Your task to perform on an android device: uninstall "Reddit" Image 0: 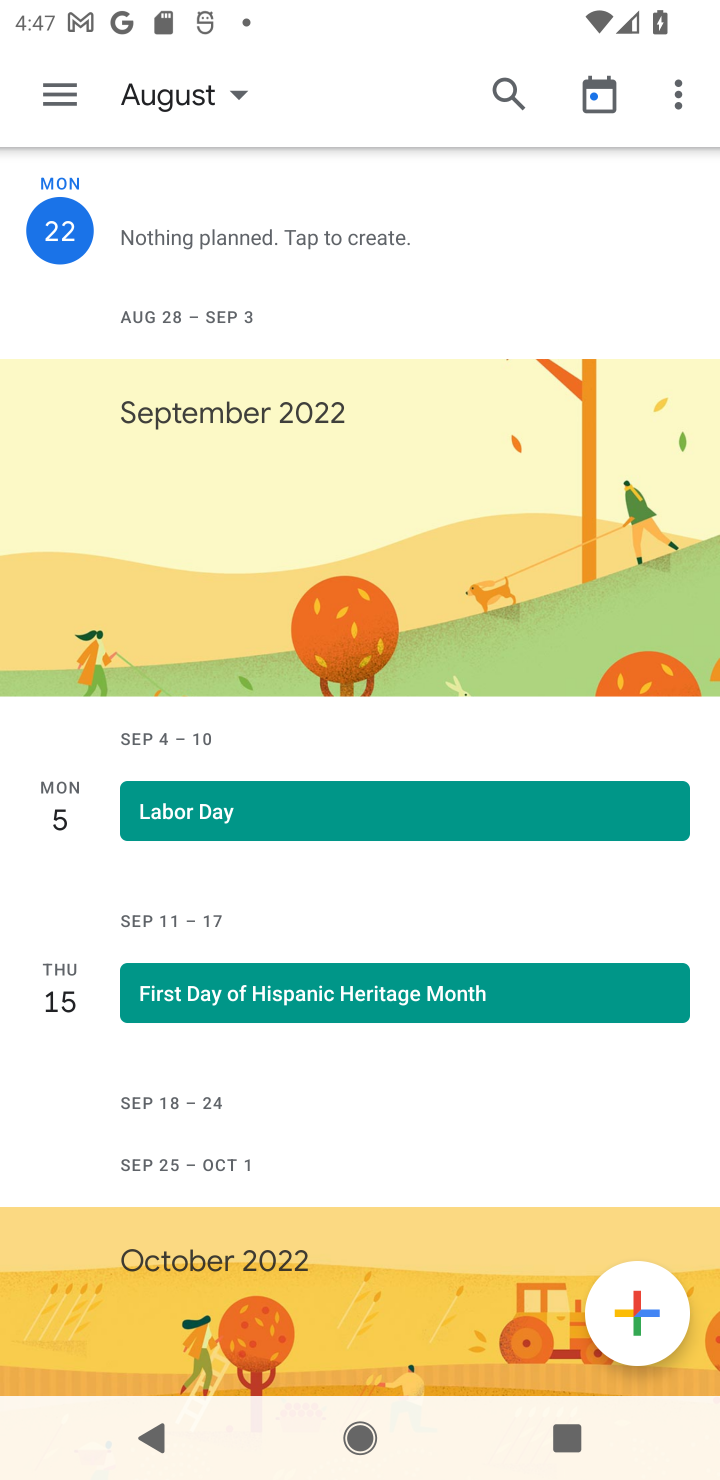
Step 0: press back button
Your task to perform on an android device: uninstall "Reddit" Image 1: 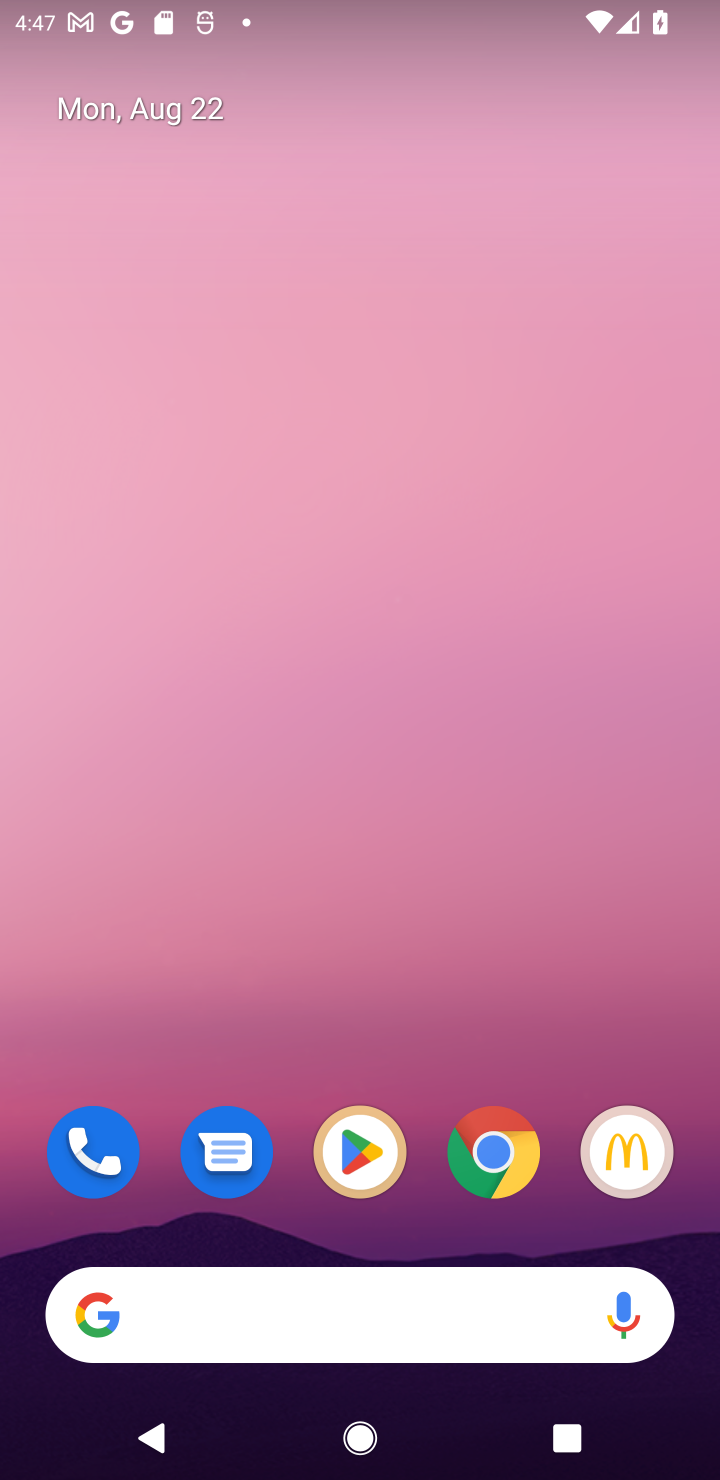
Step 1: click (374, 1179)
Your task to perform on an android device: uninstall "Reddit" Image 2: 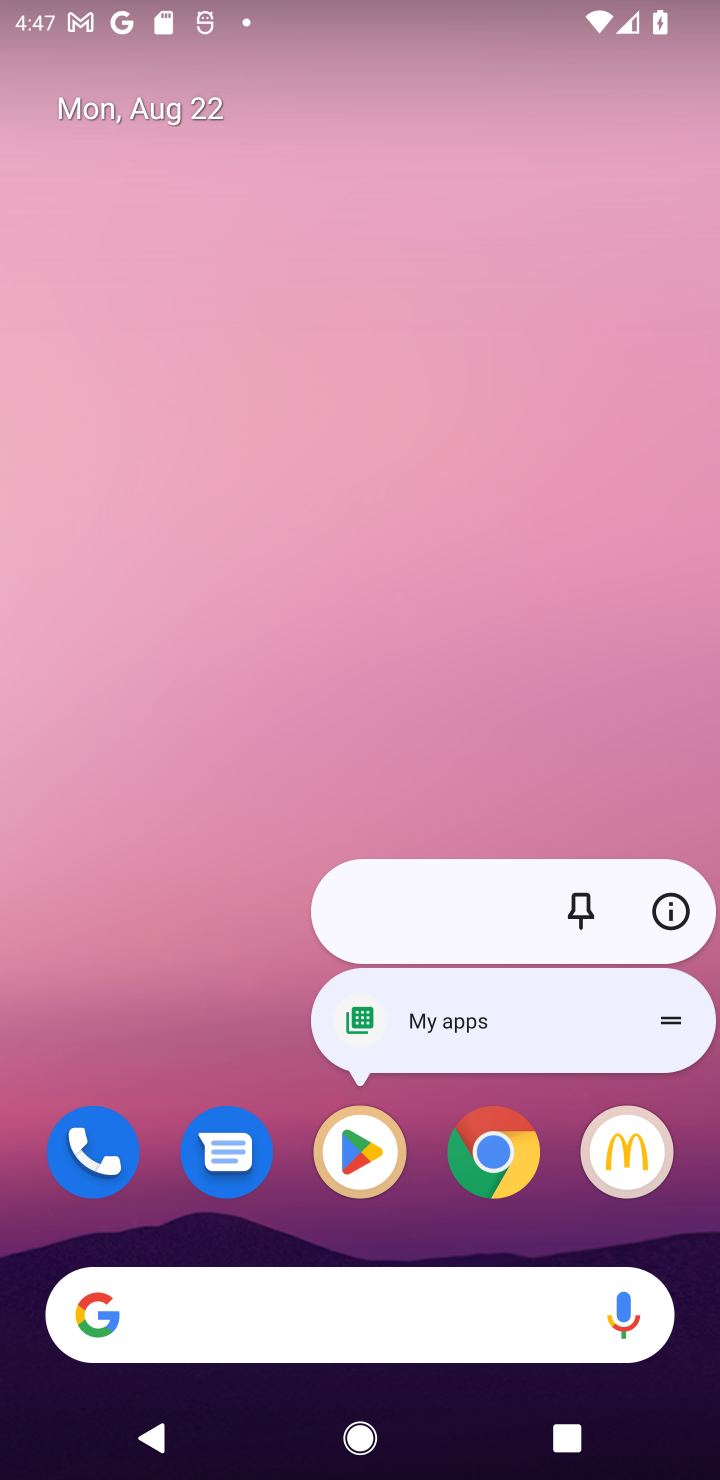
Step 2: click (348, 1173)
Your task to perform on an android device: uninstall "Reddit" Image 3: 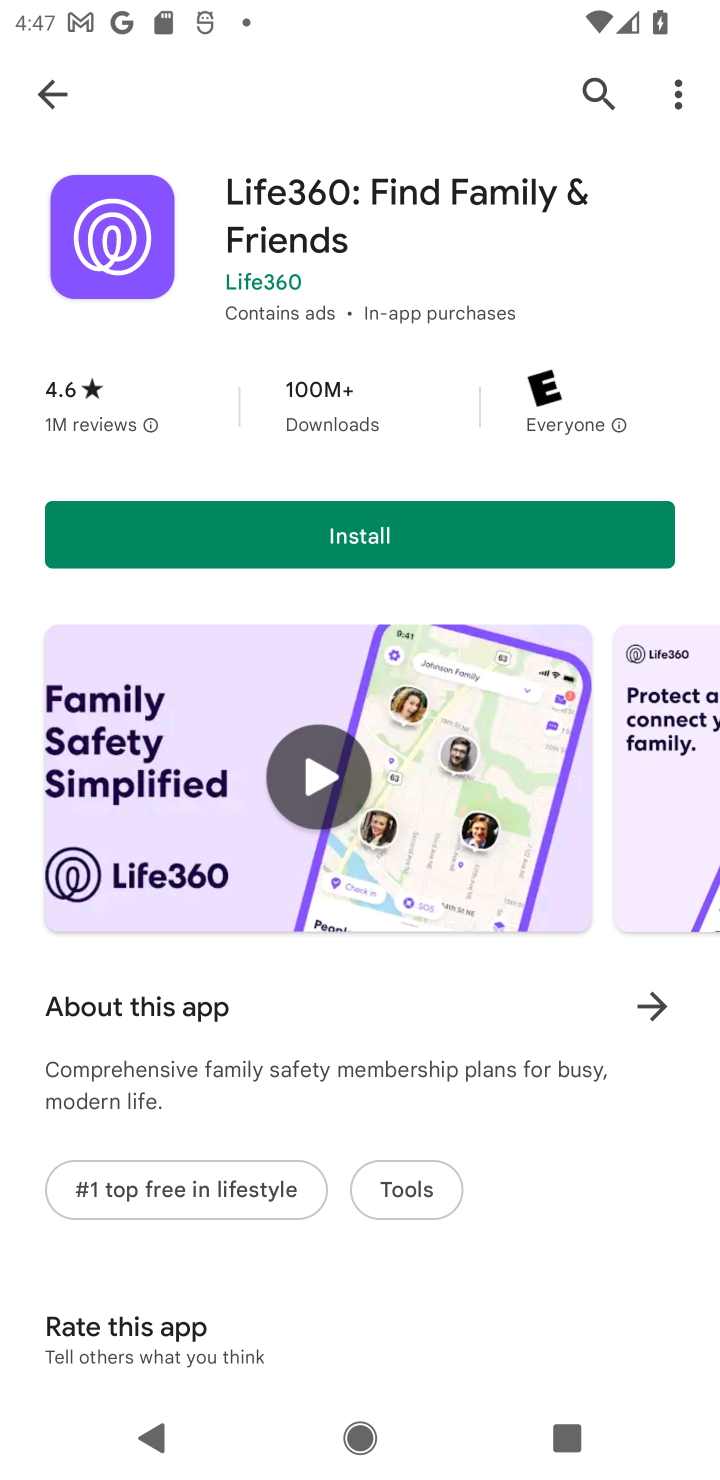
Step 3: click (48, 86)
Your task to perform on an android device: uninstall "Reddit" Image 4: 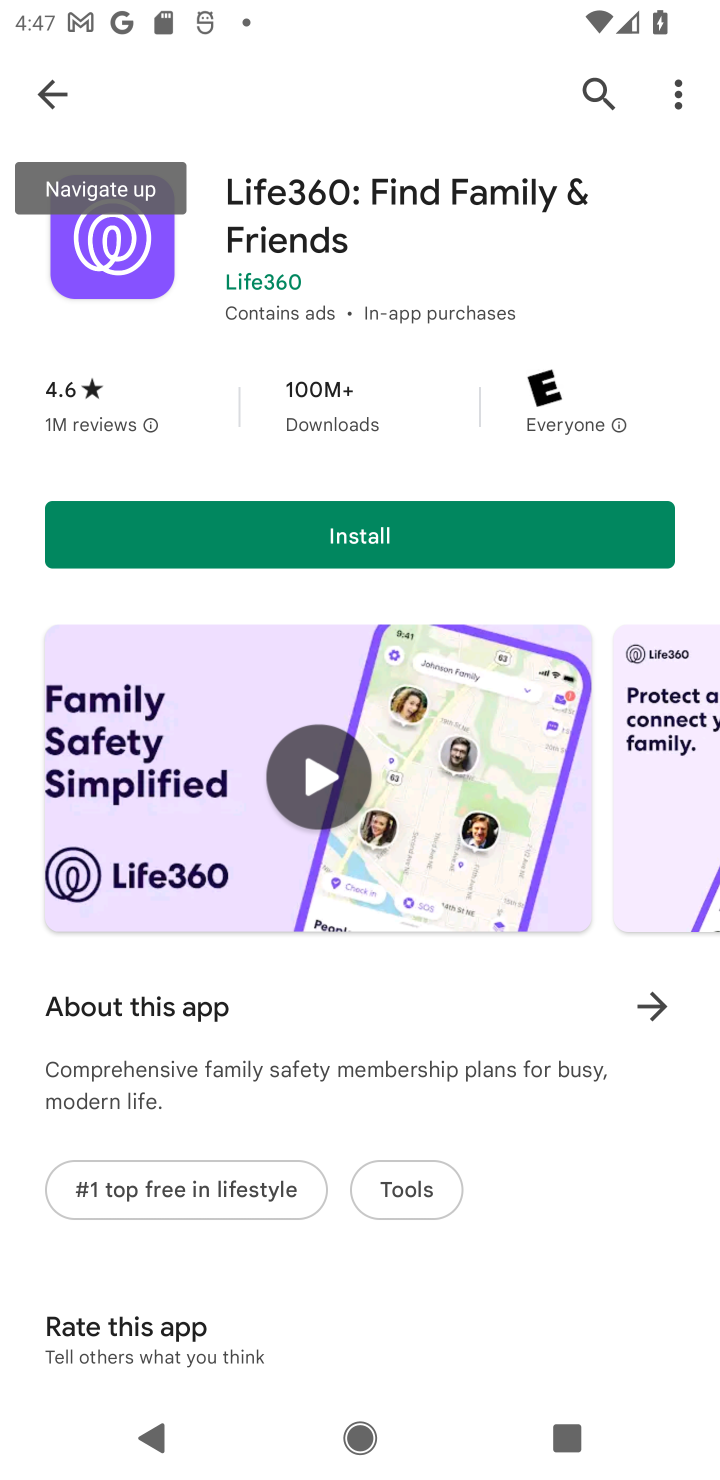
Step 4: click (619, 100)
Your task to perform on an android device: uninstall "Reddit" Image 5: 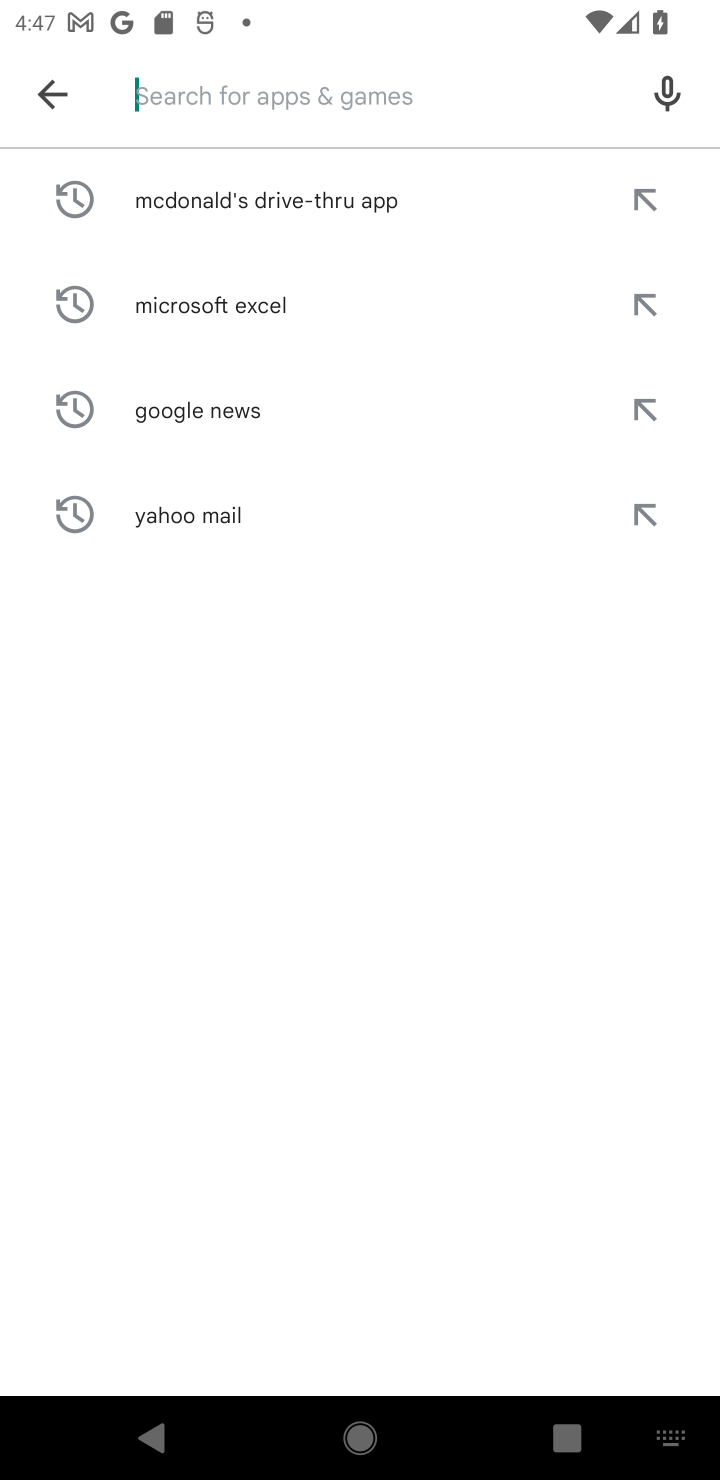
Step 5: type "Reddit"
Your task to perform on an android device: uninstall "Reddit" Image 6: 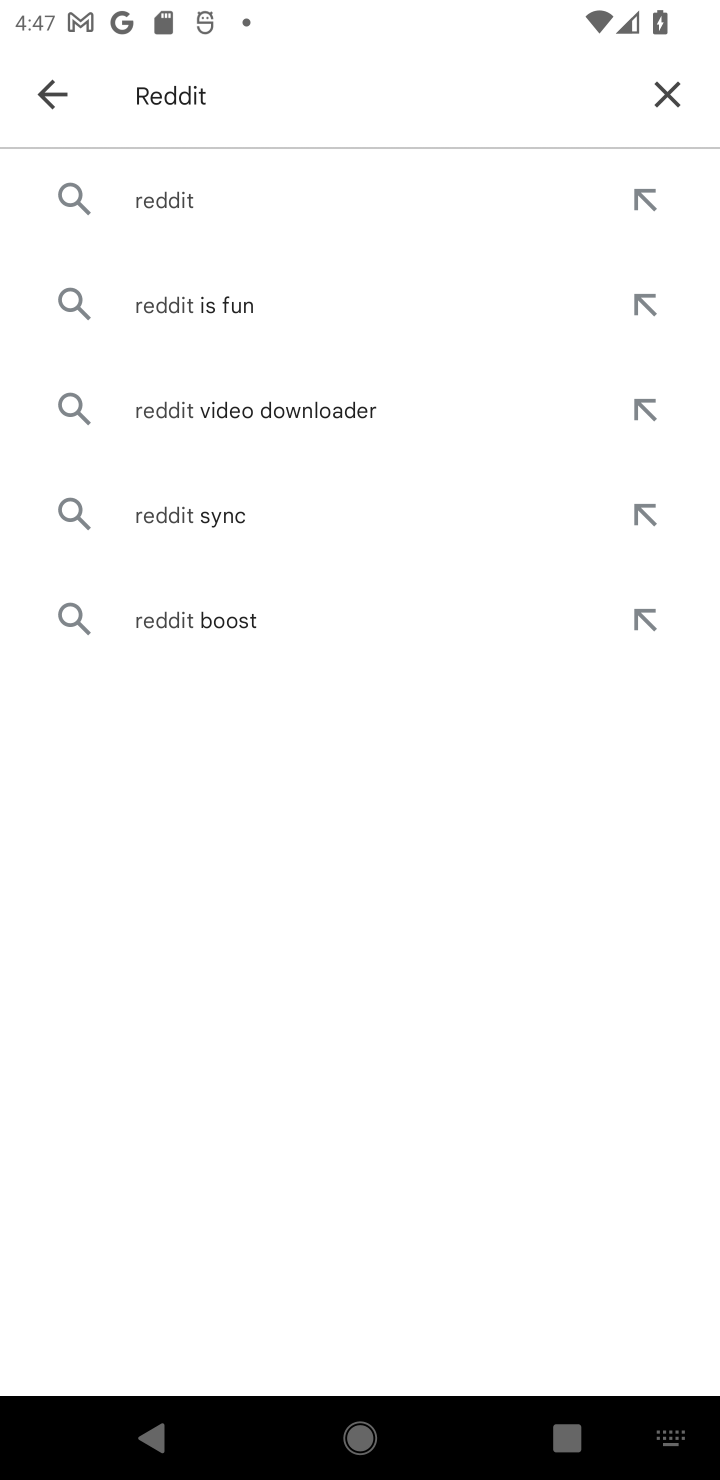
Step 6: click (171, 207)
Your task to perform on an android device: uninstall "Reddit" Image 7: 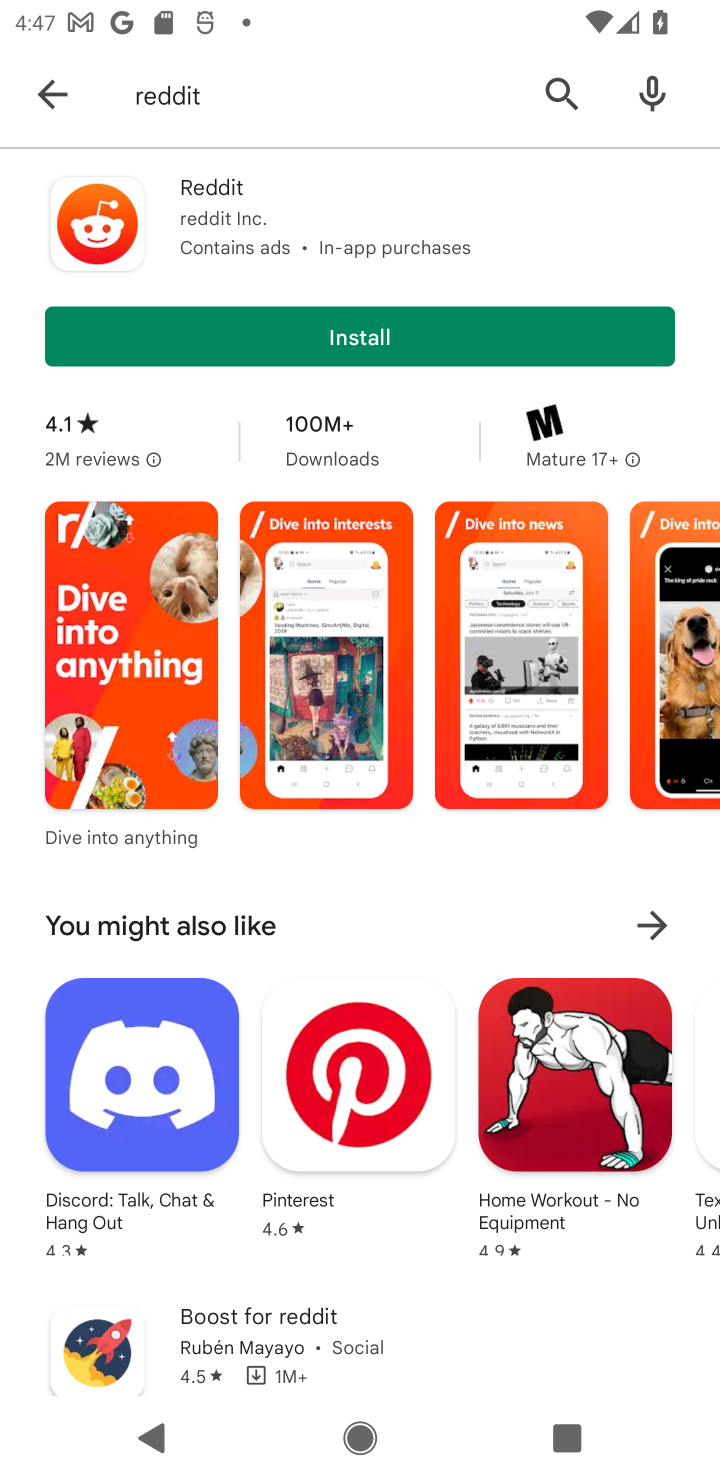
Step 7: task complete